Your task to perform on an android device: turn on javascript in the chrome app Image 0: 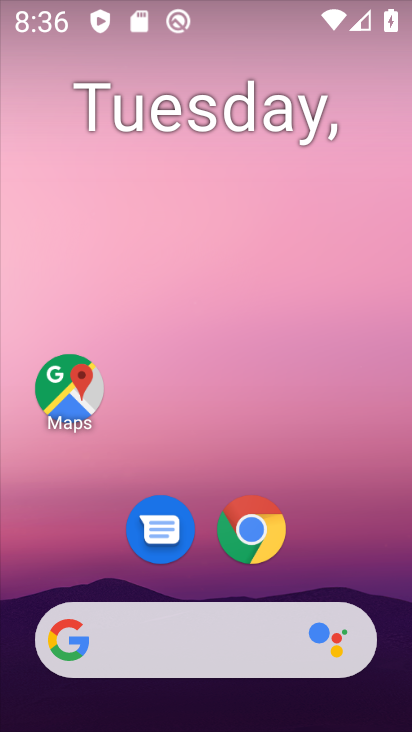
Step 0: click (250, 527)
Your task to perform on an android device: turn on javascript in the chrome app Image 1: 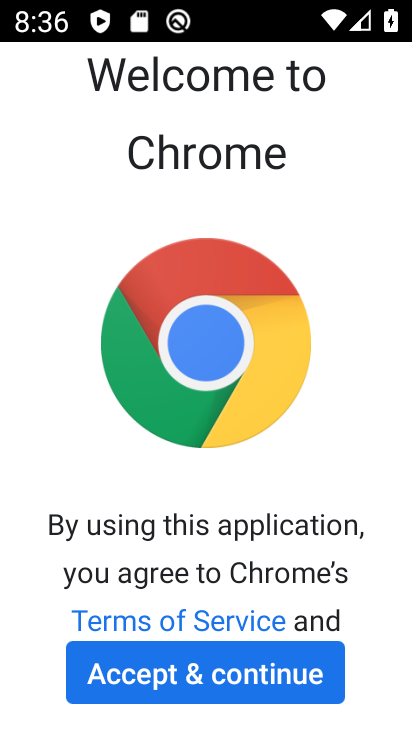
Step 1: click (192, 670)
Your task to perform on an android device: turn on javascript in the chrome app Image 2: 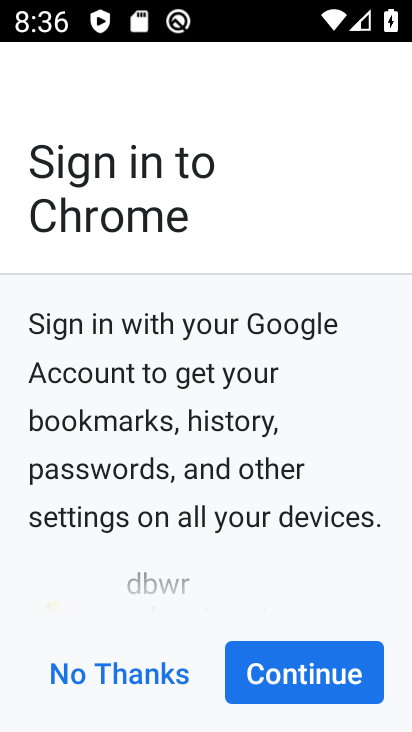
Step 2: click (306, 674)
Your task to perform on an android device: turn on javascript in the chrome app Image 3: 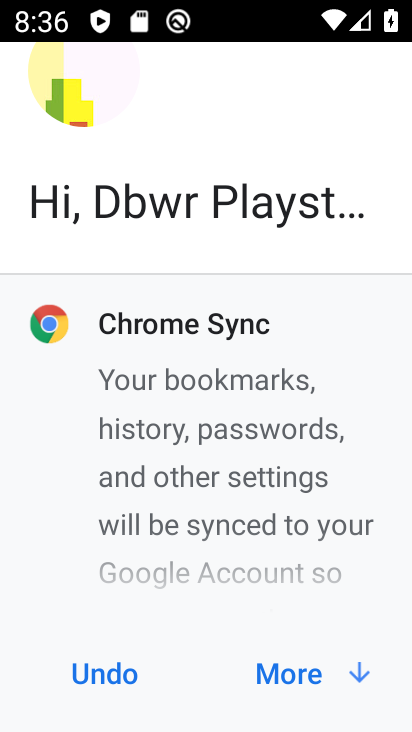
Step 3: click (289, 673)
Your task to perform on an android device: turn on javascript in the chrome app Image 4: 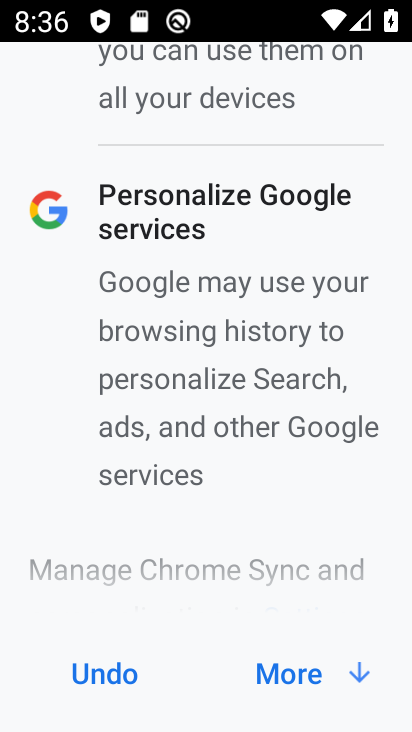
Step 4: click (289, 673)
Your task to perform on an android device: turn on javascript in the chrome app Image 5: 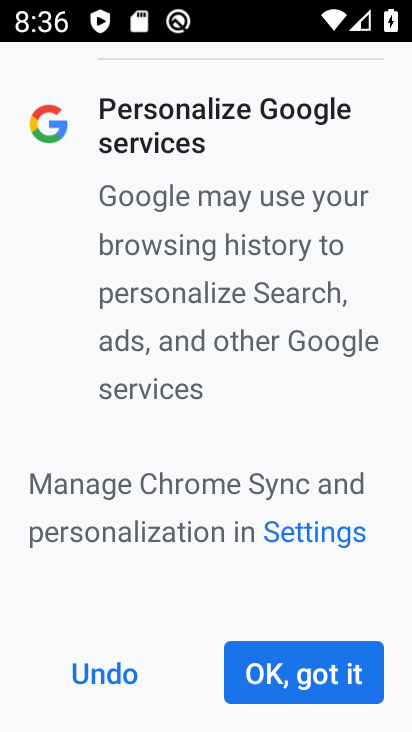
Step 5: click (289, 673)
Your task to perform on an android device: turn on javascript in the chrome app Image 6: 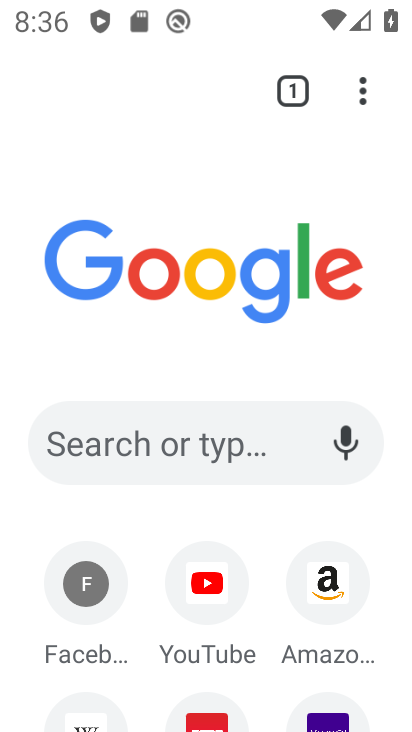
Step 6: click (362, 91)
Your task to perform on an android device: turn on javascript in the chrome app Image 7: 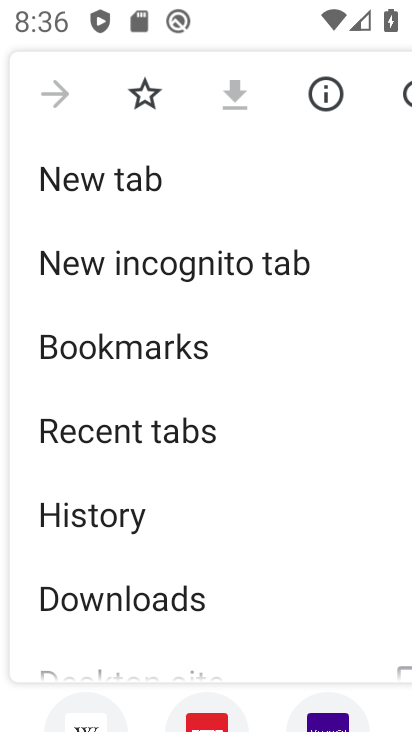
Step 7: drag from (252, 618) to (304, 277)
Your task to perform on an android device: turn on javascript in the chrome app Image 8: 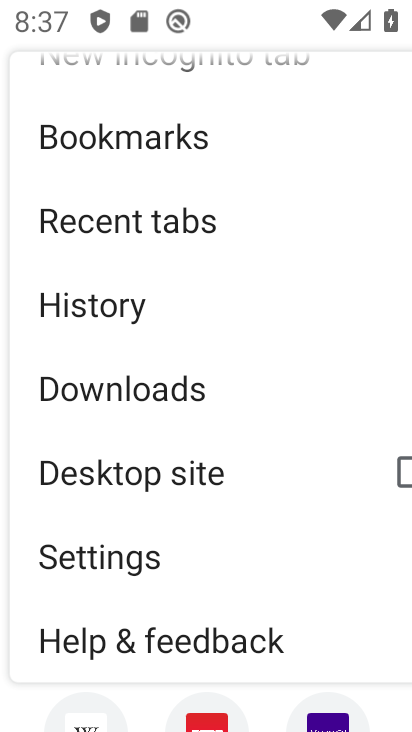
Step 8: click (102, 558)
Your task to perform on an android device: turn on javascript in the chrome app Image 9: 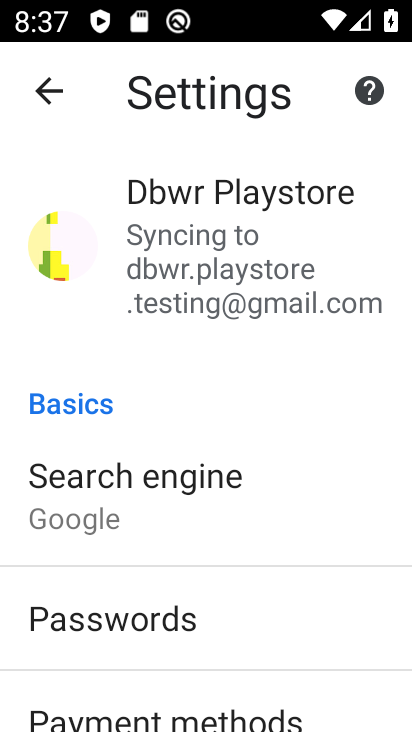
Step 9: drag from (284, 661) to (282, 298)
Your task to perform on an android device: turn on javascript in the chrome app Image 10: 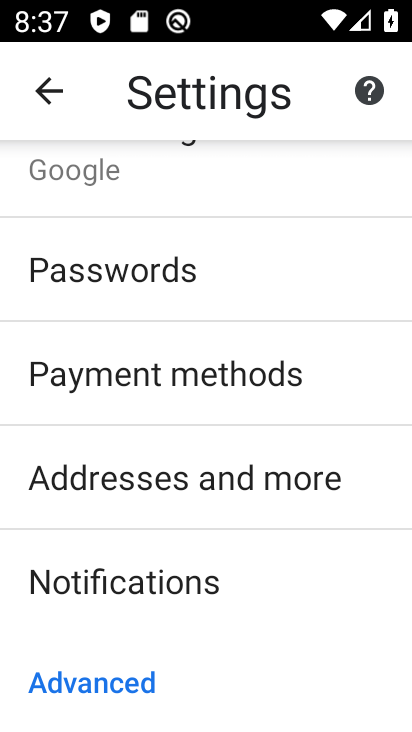
Step 10: drag from (302, 617) to (333, 341)
Your task to perform on an android device: turn on javascript in the chrome app Image 11: 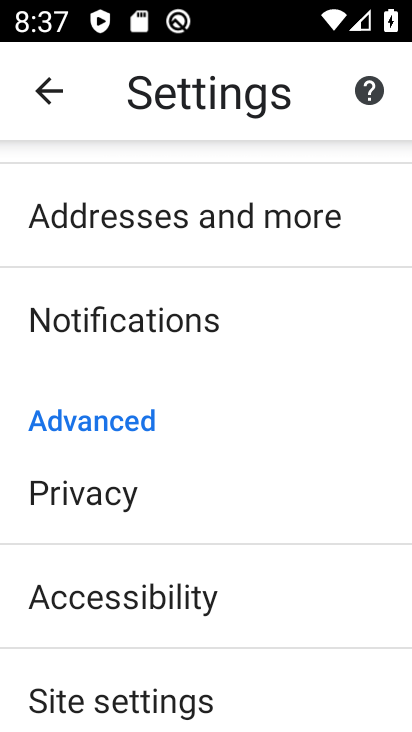
Step 11: drag from (280, 629) to (266, 293)
Your task to perform on an android device: turn on javascript in the chrome app Image 12: 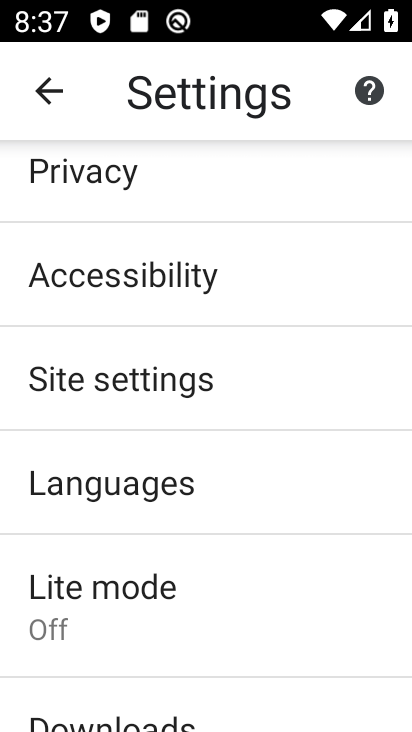
Step 12: click (85, 391)
Your task to perform on an android device: turn on javascript in the chrome app Image 13: 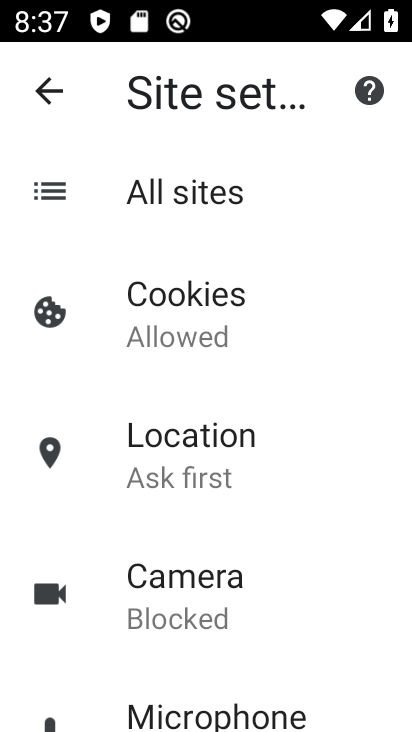
Step 13: drag from (251, 626) to (261, 283)
Your task to perform on an android device: turn on javascript in the chrome app Image 14: 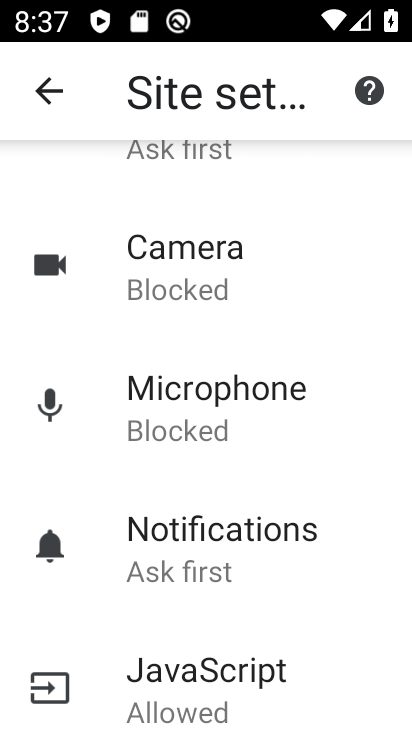
Step 14: click (198, 663)
Your task to perform on an android device: turn on javascript in the chrome app Image 15: 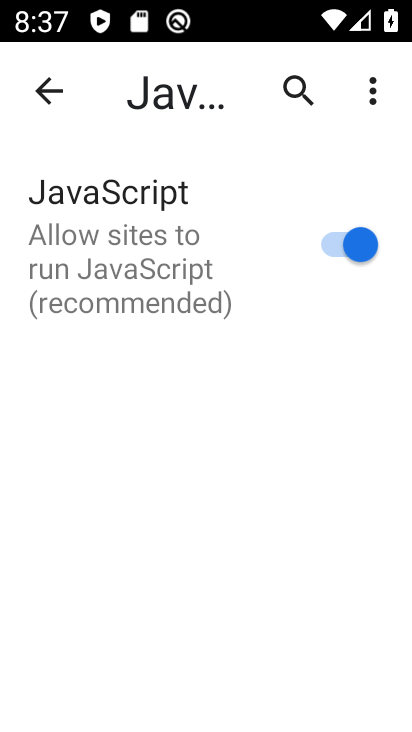
Step 15: task complete